Your task to perform on an android device: check android version Image 0: 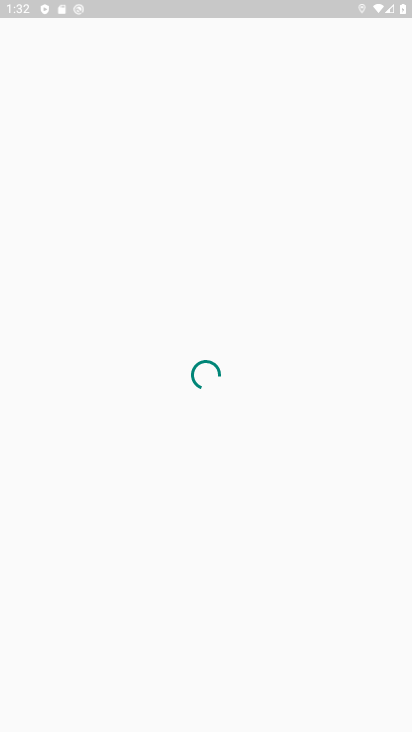
Step 0: press home button
Your task to perform on an android device: check android version Image 1: 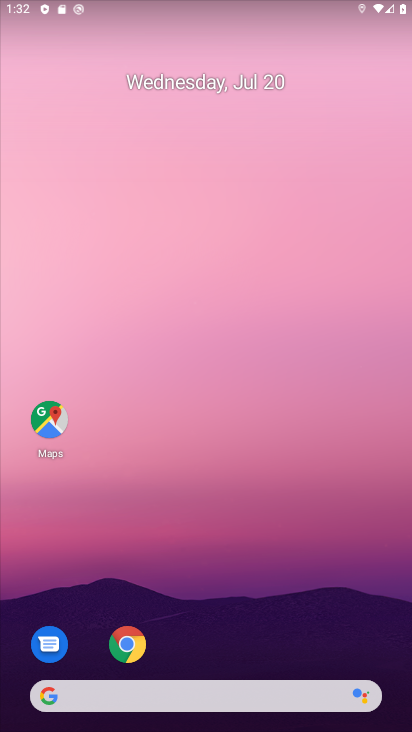
Step 1: drag from (291, 616) to (315, 9)
Your task to perform on an android device: check android version Image 2: 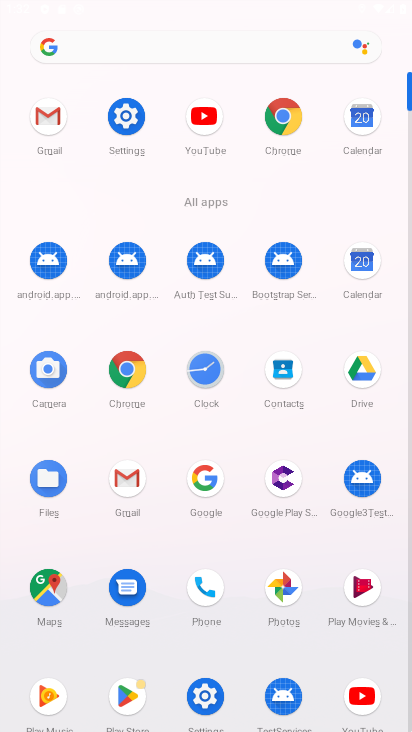
Step 2: click (116, 109)
Your task to perform on an android device: check android version Image 3: 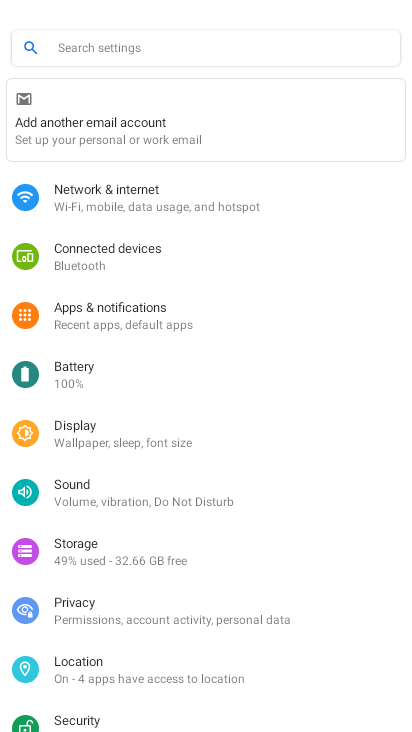
Step 3: drag from (186, 630) to (186, 22)
Your task to perform on an android device: check android version Image 4: 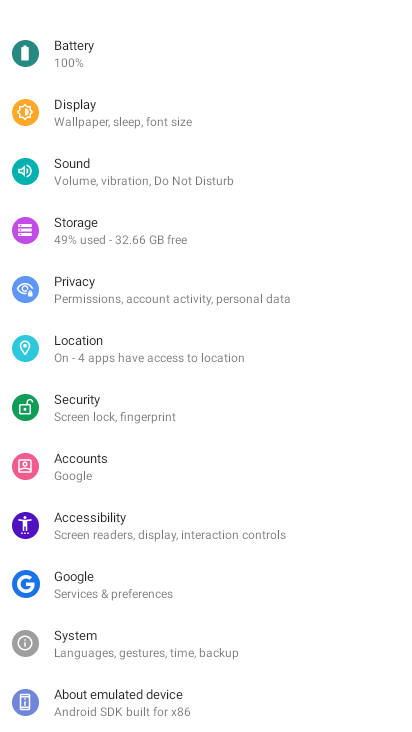
Step 4: click (144, 698)
Your task to perform on an android device: check android version Image 5: 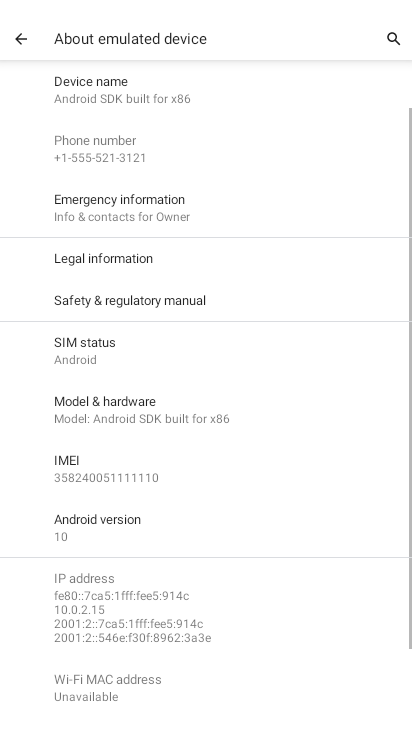
Step 5: click (123, 517)
Your task to perform on an android device: check android version Image 6: 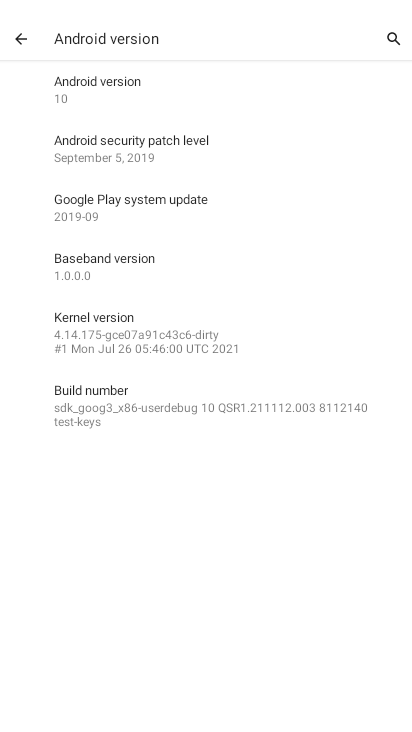
Step 6: click (112, 92)
Your task to perform on an android device: check android version Image 7: 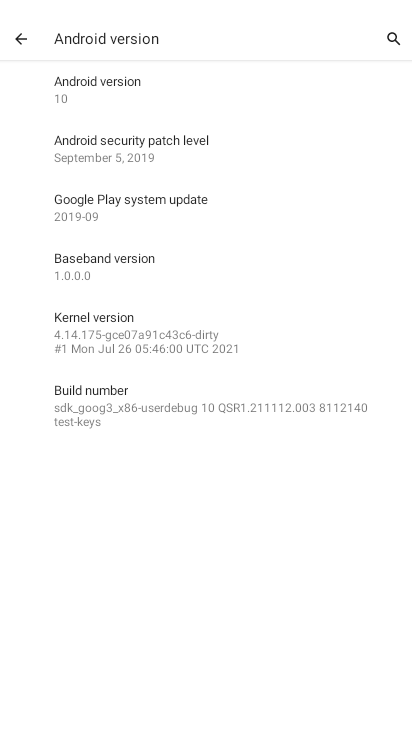
Step 7: task complete